Your task to perform on an android device: check android version Image 0: 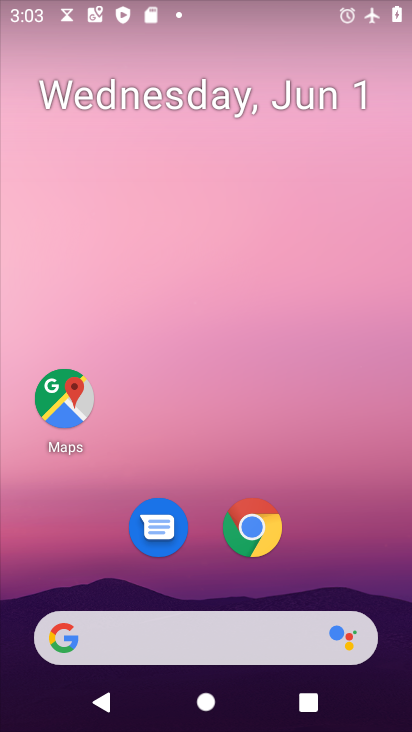
Step 0: drag from (315, 474) to (276, 139)
Your task to perform on an android device: check android version Image 1: 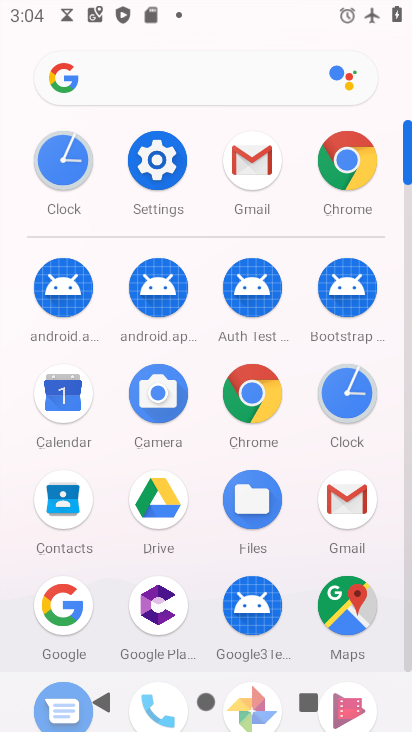
Step 1: click (158, 159)
Your task to perform on an android device: check android version Image 2: 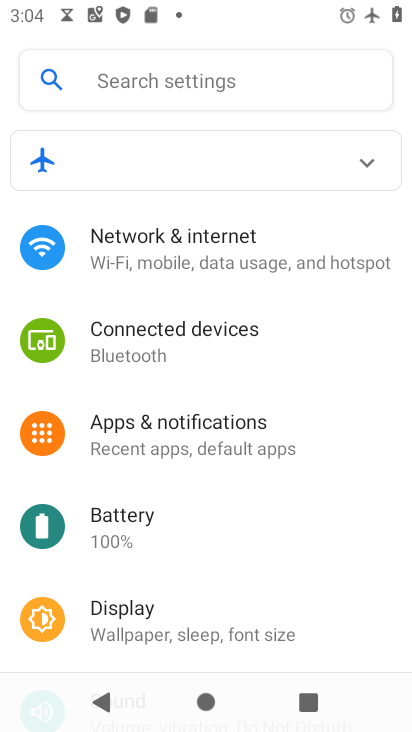
Step 2: drag from (175, 532) to (181, 408)
Your task to perform on an android device: check android version Image 3: 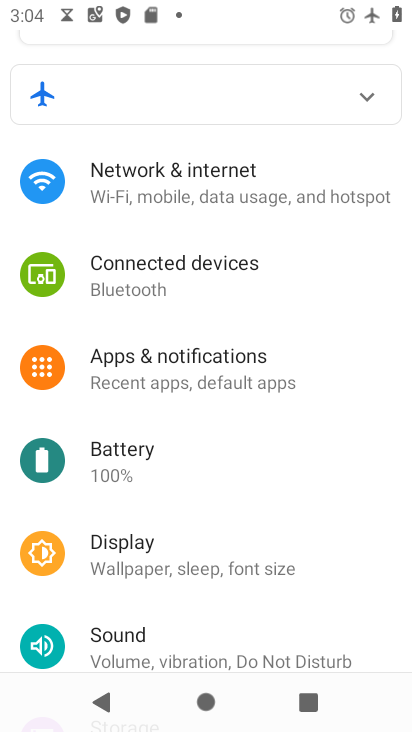
Step 3: drag from (190, 592) to (194, 429)
Your task to perform on an android device: check android version Image 4: 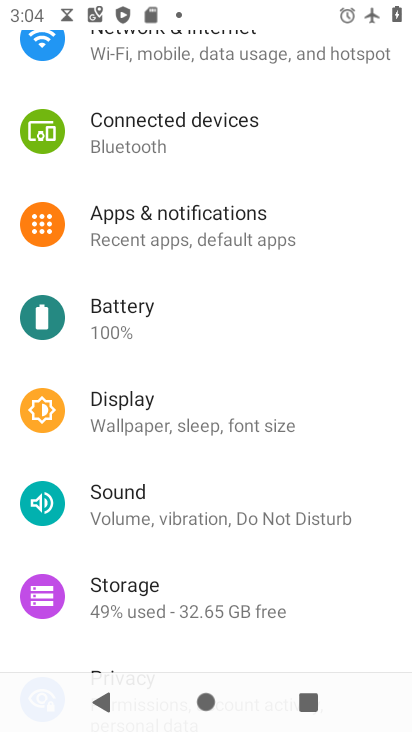
Step 4: drag from (193, 558) to (203, 458)
Your task to perform on an android device: check android version Image 5: 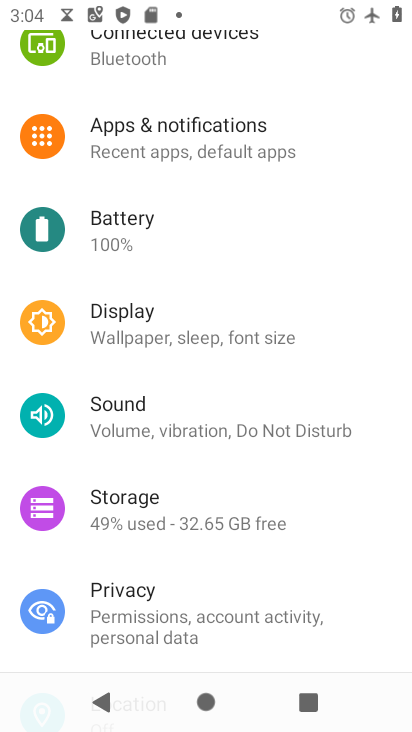
Step 5: drag from (183, 572) to (204, 422)
Your task to perform on an android device: check android version Image 6: 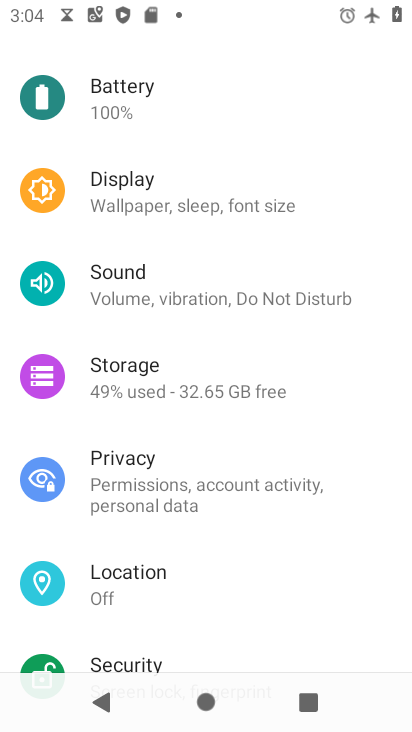
Step 6: drag from (192, 581) to (224, 373)
Your task to perform on an android device: check android version Image 7: 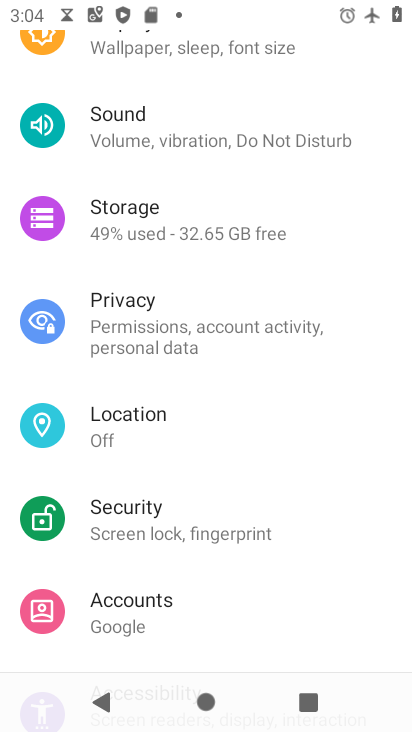
Step 7: drag from (180, 567) to (176, 415)
Your task to perform on an android device: check android version Image 8: 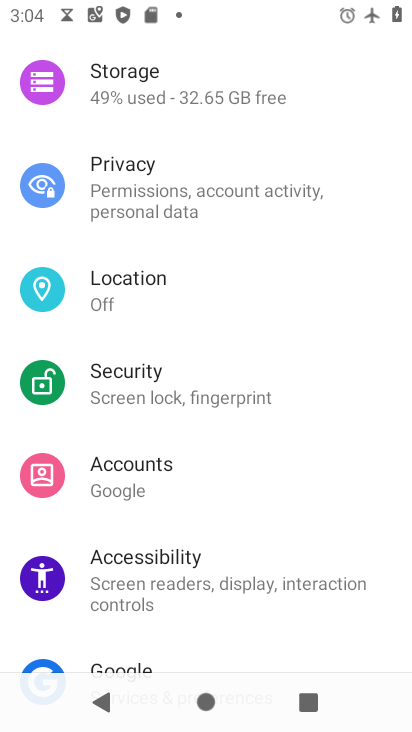
Step 8: drag from (202, 544) to (214, 394)
Your task to perform on an android device: check android version Image 9: 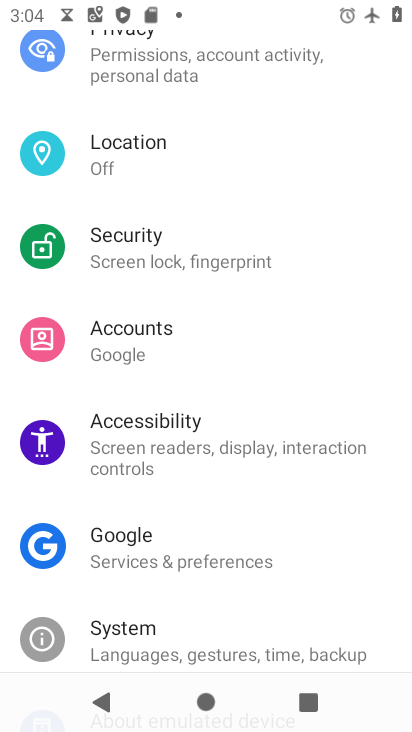
Step 9: drag from (186, 602) to (225, 442)
Your task to perform on an android device: check android version Image 10: 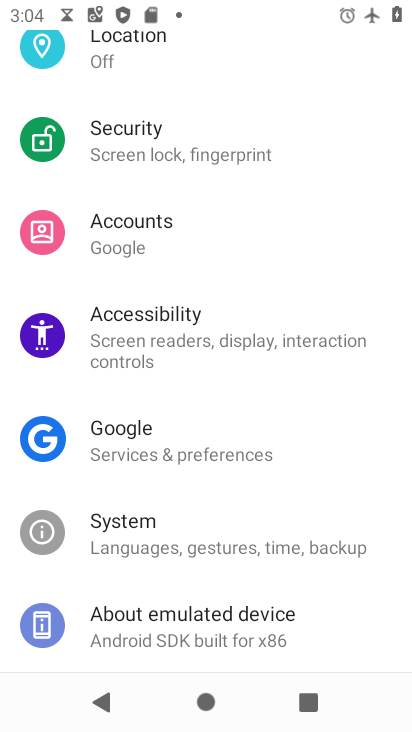
Step 10: click (188, 628)
Your task to perform on an android device: check android version Image 11: 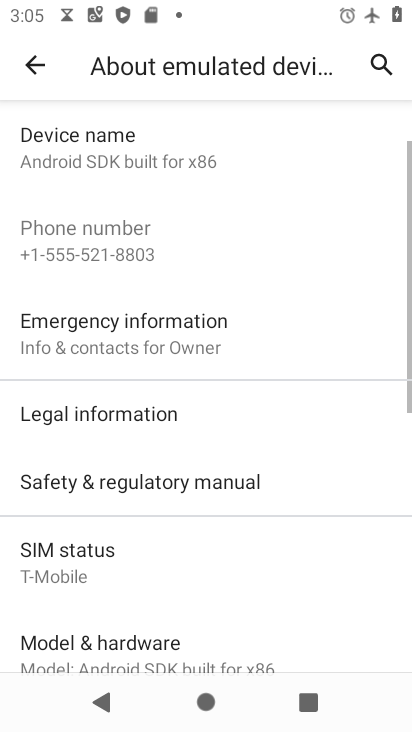
Step 11: drag from (172, 548) to (199, 423)
Your task to perform on an android device: check android version Image 12: 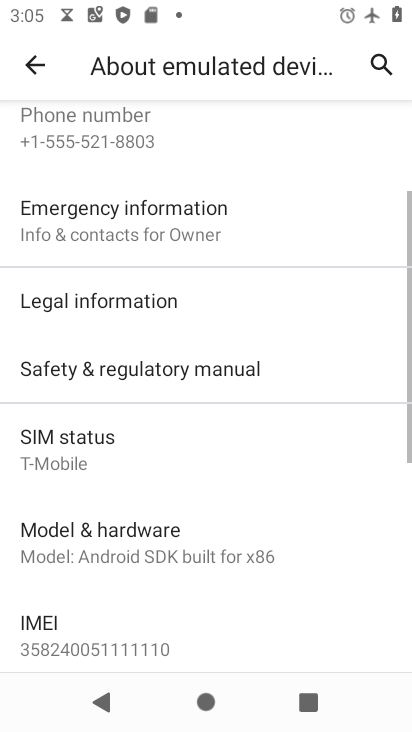
Step 12: drag from (145, 601) to (168, 461)
Your task to perform on an android device: check android version Image 13: 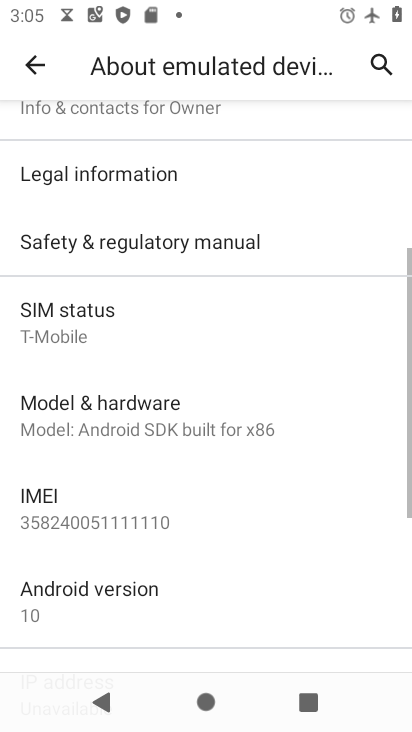
Step 13: click (131, 599)
Your task to perform on an android device: check android version Image 14: 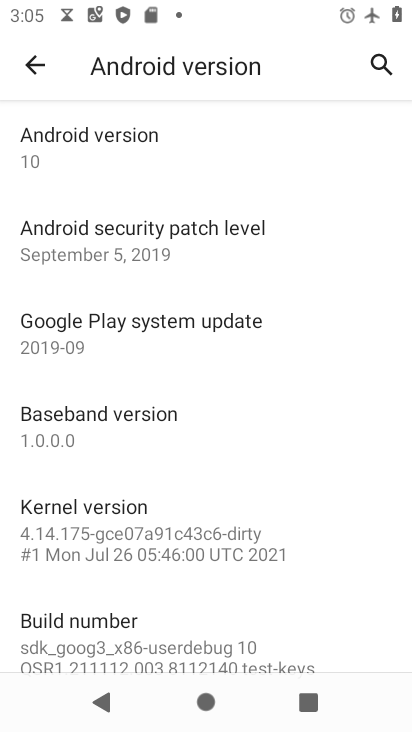
Step 14: task complete